Your task to perform on an android device: change text size in settings app Image 0: 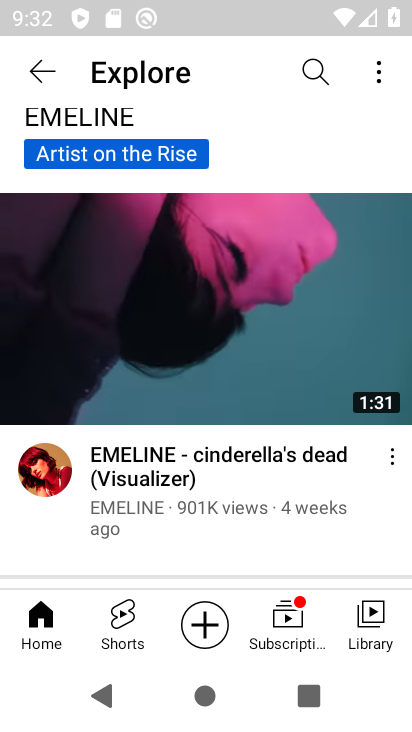
Step 0: press home button
Your task to perform on an android device: change text size in settings app Image 1: 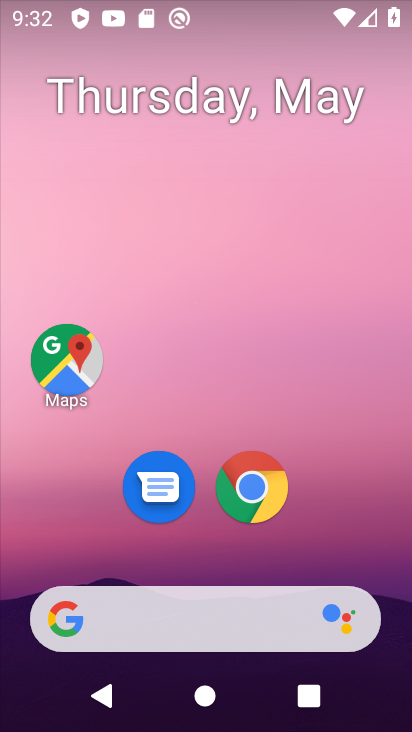
Step 1: drag from (212, 559) to (316, 98)
Your task to perform on an android device: change text size in settings app Image 2: 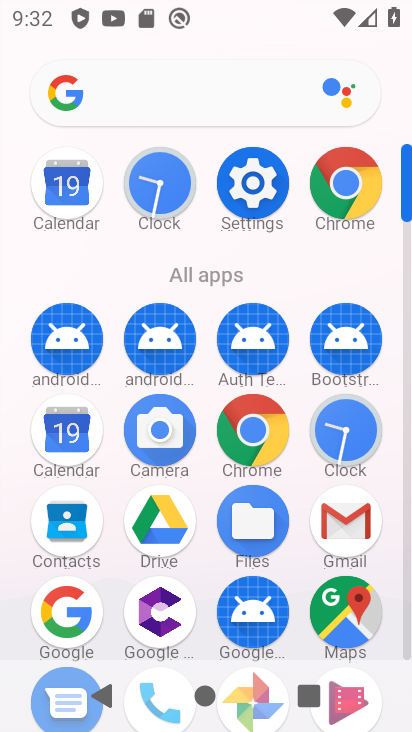
Step 2: click (238, 191)
Your task to perform on an android device: change text size in settings app Image 3: 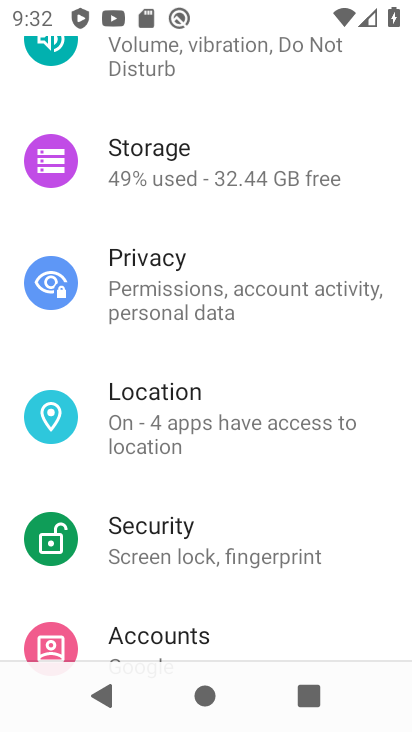
Step 3: drag from (220, 221) to (214, 680)
Your task to perform on an android device: change text size in settings app Image 4: 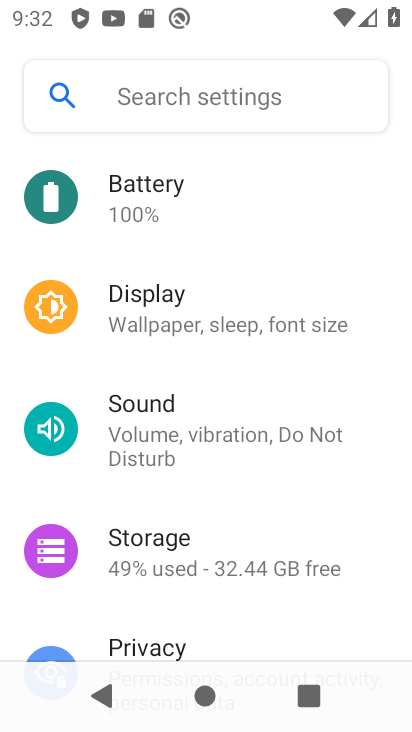
Step 4: click (194, 97)
Your task to perform on an android device: change text size in settings app Image 5: 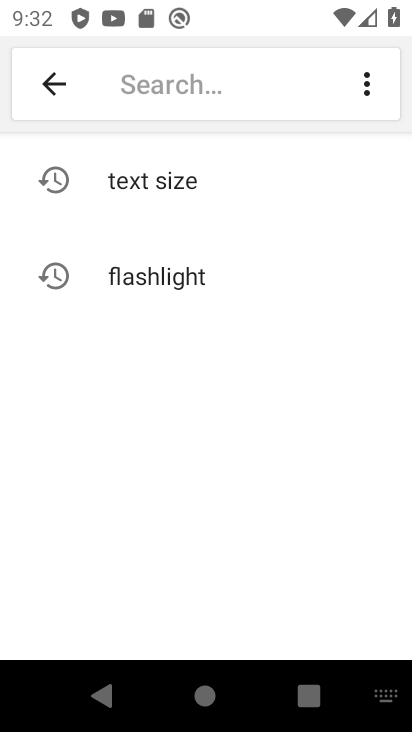
Step 5: click (154, 171)
Your task to perform on an android device: change text size in settings app Image 6: 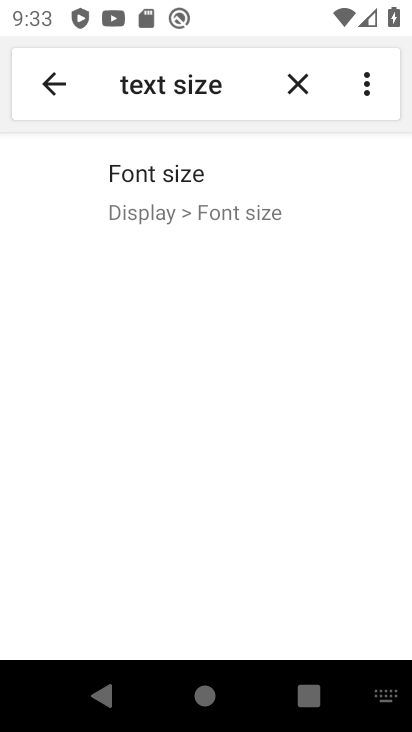
Step 6: click (126, 176)
Your task to perform on an android device: change text size in settings app Image 7: 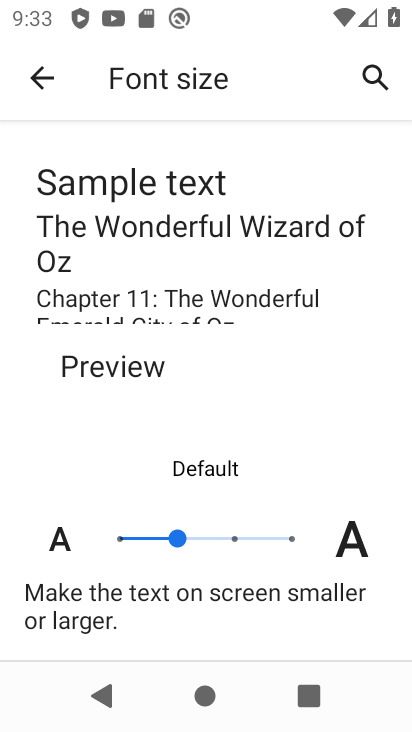
Step 7: task complete